Your task to perform on an android device: change the clock display to show seconds Image 0: 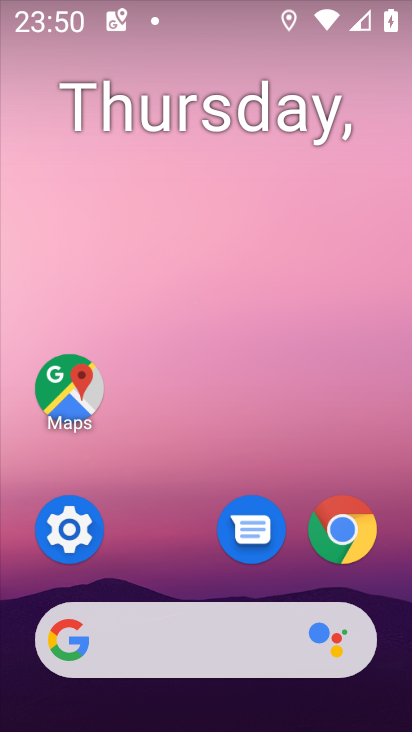
Step 0: click (62, 414)
Your task to perform on an android device: change the clock display to show seconds Image 1: 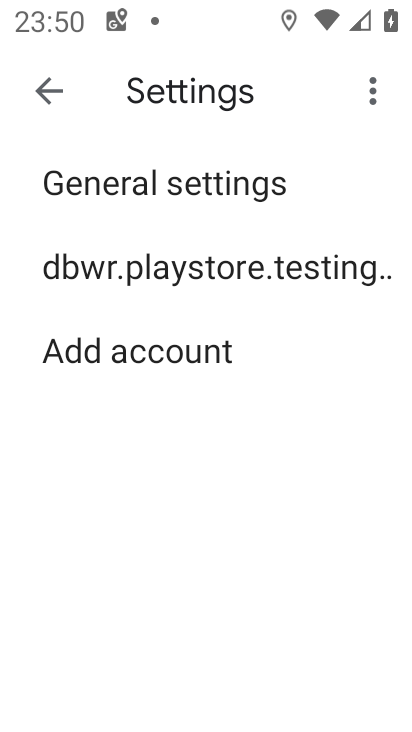
Step 1: press home button
Your task to perform on an android device: change the clock display to show seconds Image 2: 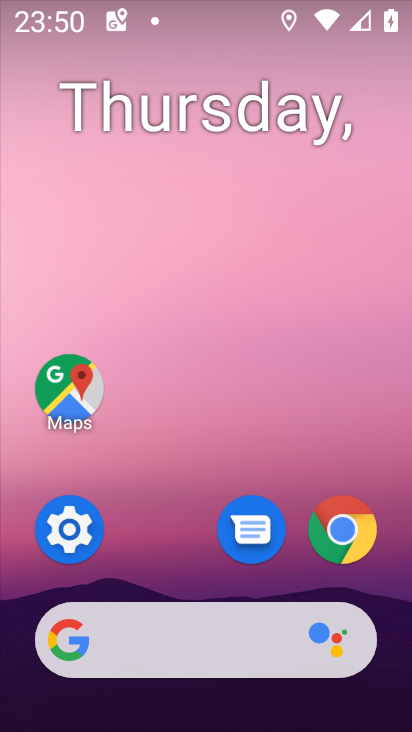
Step 2: drag from (175, 587) to (266, 35)
Your task to perform on an android device: change the clock display to show seconds Image 3: 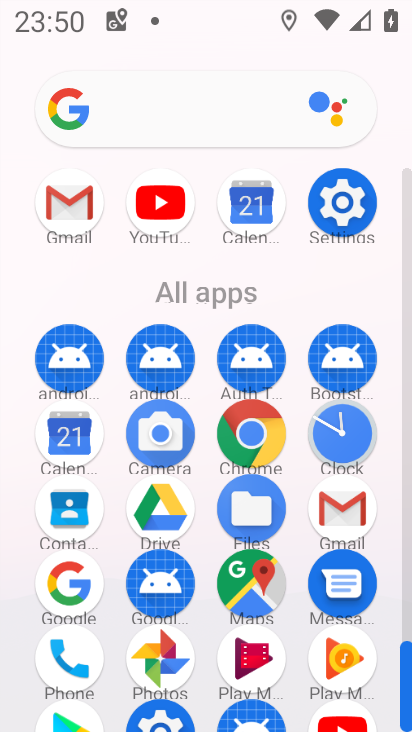
Step 3: click (323, 445)
Your task to perform on an android device: change the clock display to show seconds Image 4: 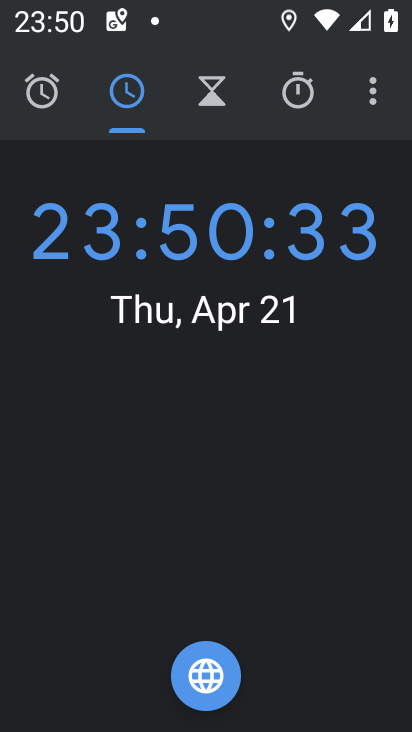
Step 4: click (371, 91)
Your task to perform on an android device: change the clock display to show seconds Image 5: 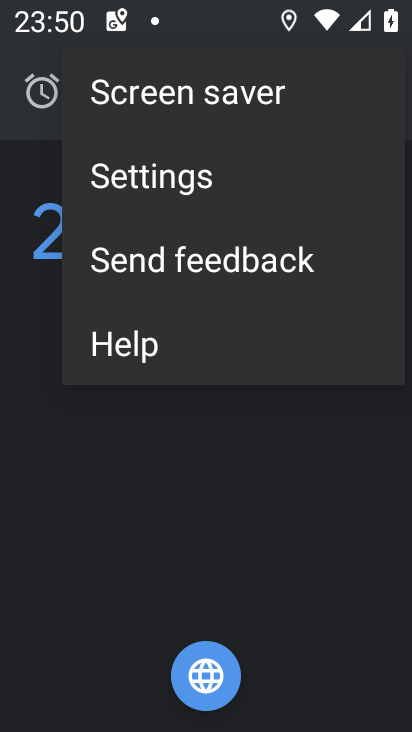
Step 5: click (231, 184)
Your task to perform on an android device: change the clock display to show seconds Image 6: 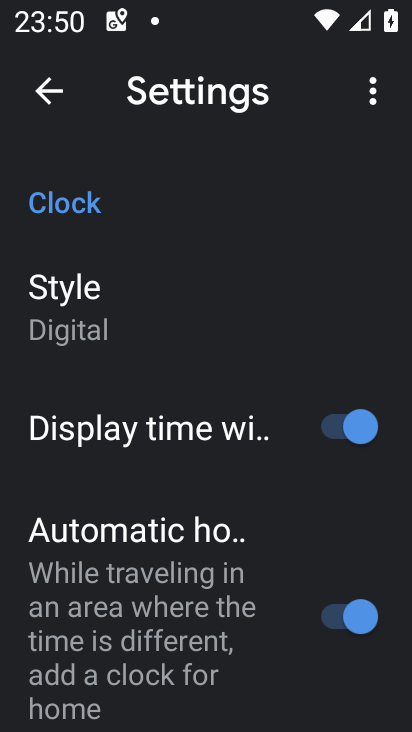
Step 6: task complete